Your task to perform on an android device: change the clock display to show seconds Image 0: 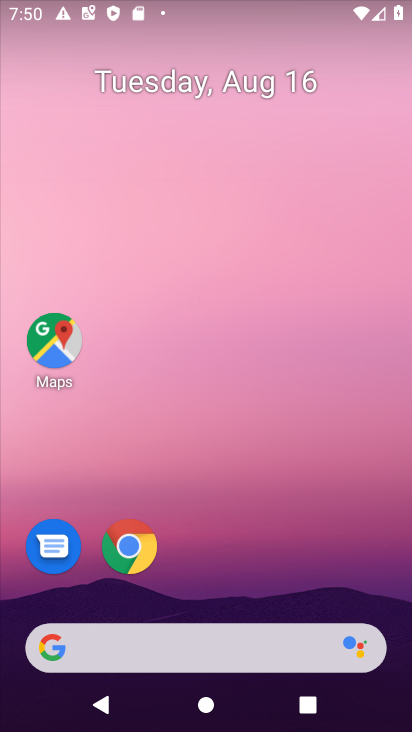
Step 0: click (133, 546)
Your task to perform on an android device: change the clock display to show seconds Image 1: 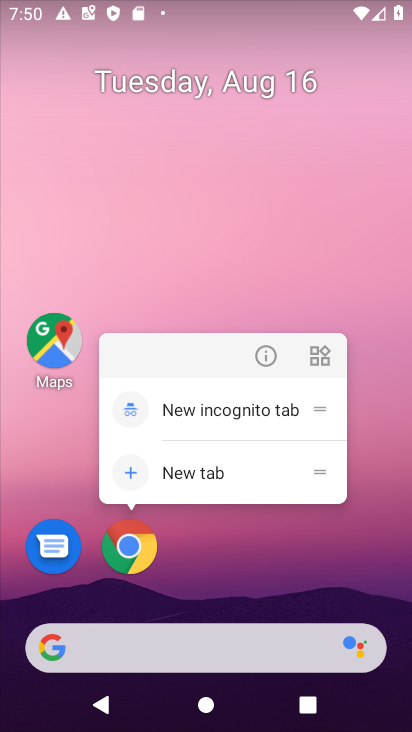
Step 1: click (131, 542)
Your task to perform on an android device: change the clock display to show seconds Image 2: 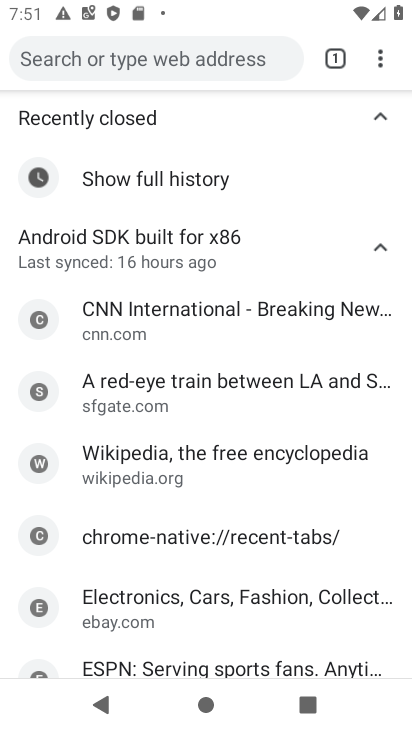
Step 2: click (379, 65)
Your task to perform on an android device: change the clock display to show seconds Image 3: 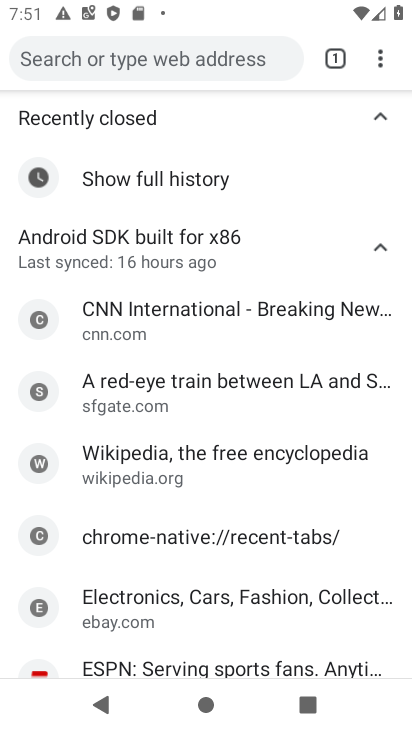
Step 3: press back button
Your task to perform on an android device: change the clock display to show seconds Image 4: 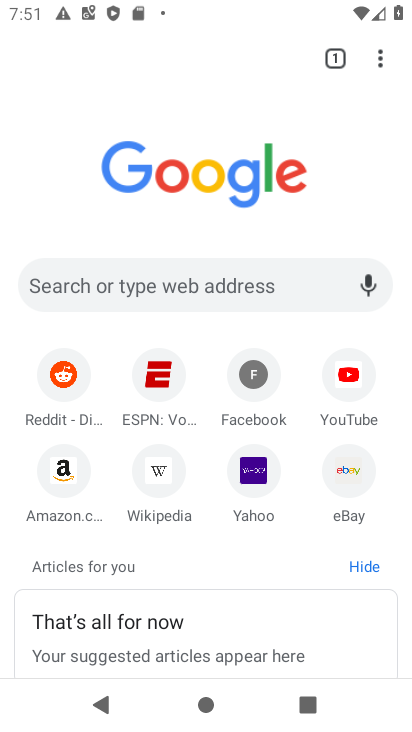
Step 4: click (377, 60)
Your task to perform on an android device: change the clock display to show seconds Image 5: 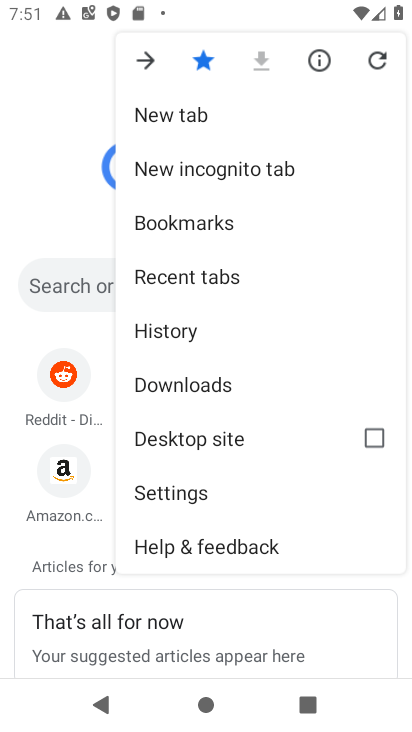
Step 5: press home button
Your task to perform on an android device: change the clock display to show seconds Image 6: 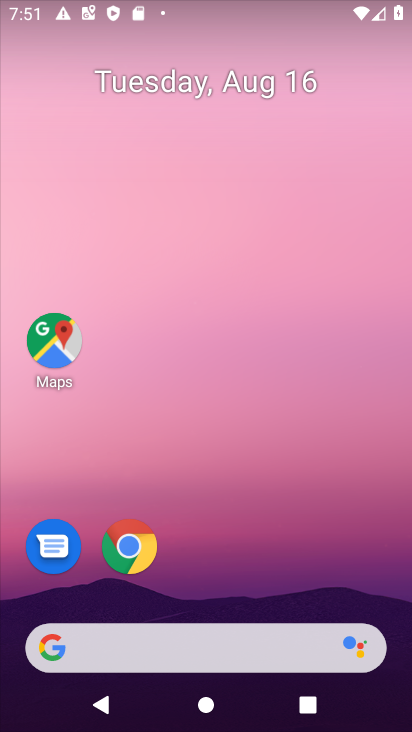
Step 6: drag from (270, 579) to (225, 46)
Your task to perform on an android device: change the clock display to show seconds Image 7: 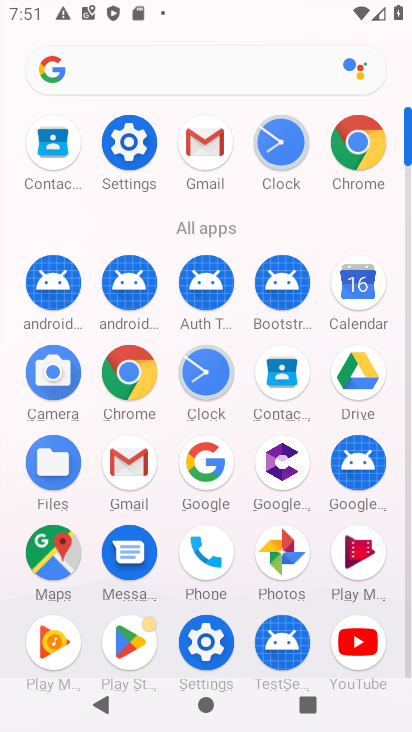
Step 7: click (277, 134)
Your task to perform on an android device: change the clock display to show seconds Image 8: 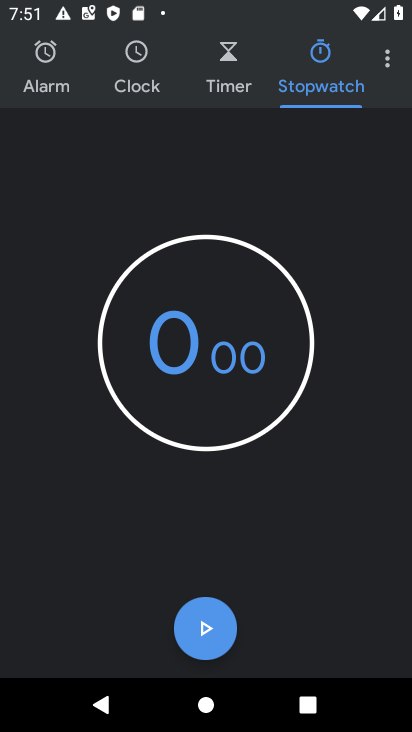
Step 8: click (142, 60)
Your task to perform on an android device: change the clock display to show seconds Image 9: 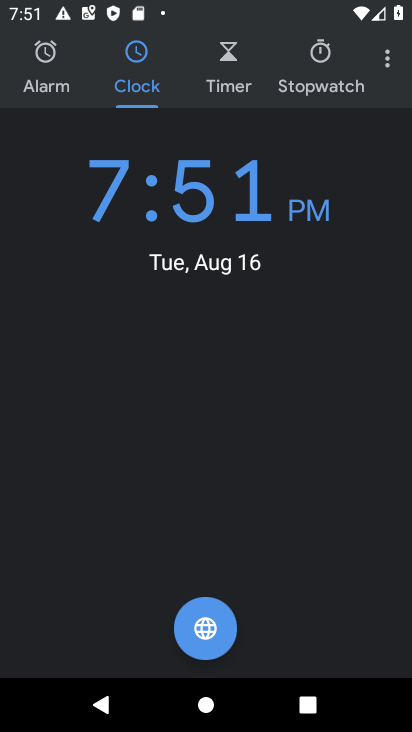
Step 9: click (386, 59)
Your task to perform on an android device: change the clock display to show seconds Image 10: 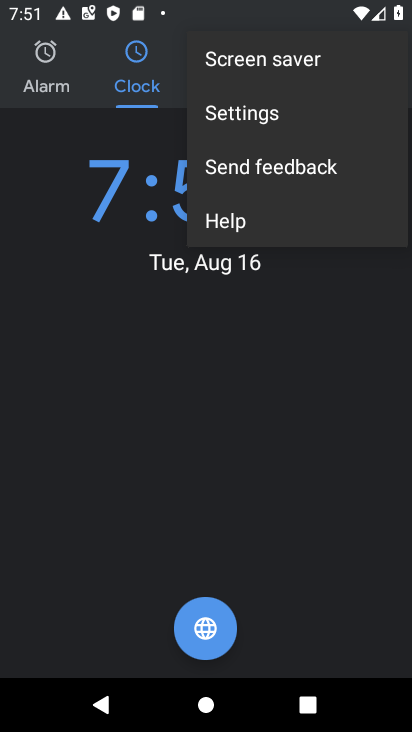
Step 10: click (312, 114)
Your task to perform on an android device: change the clock display to show seconds Image 11: 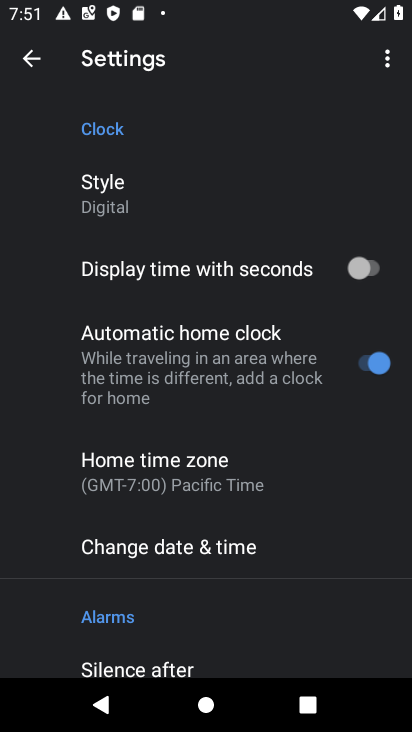
Step 11: click (364, 272)
Your task to perform on an android device: change the clock display to show seconds Image 12: 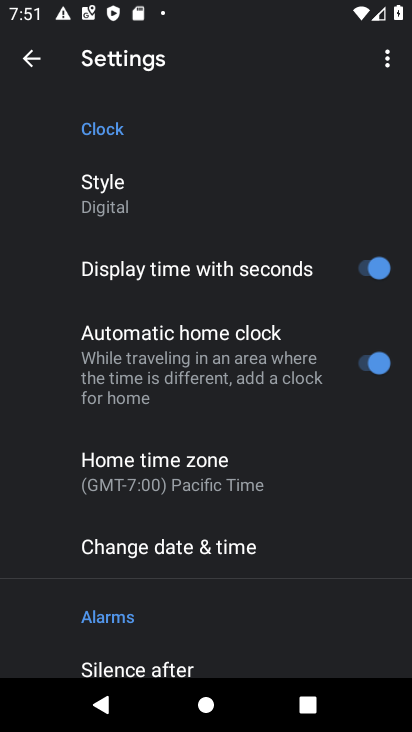
Step 12: click (34, 58)
Your task to perform on an android device: change the clock display to show seconds Image 13: 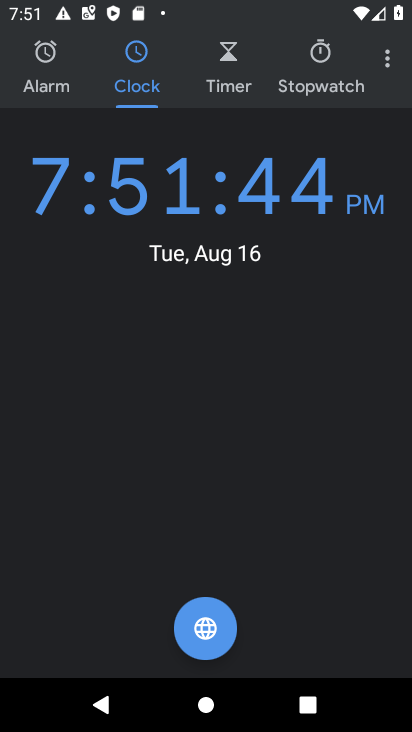
Step 13: task complete